Your task to perform on an android device: check storage Image 0: 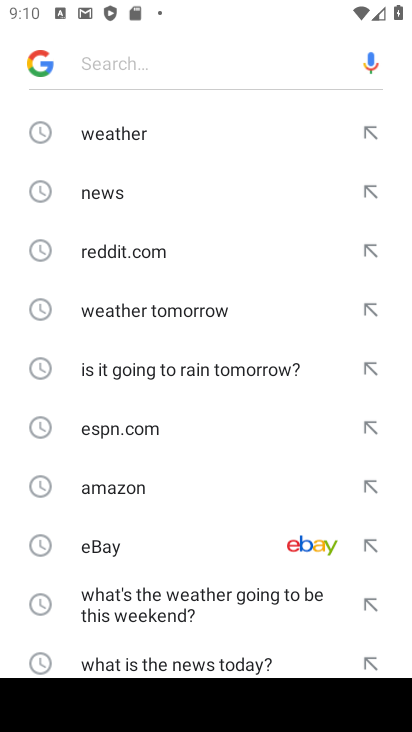
Step 0: press home button
Your task to perform on an android device: check storage Image 1: 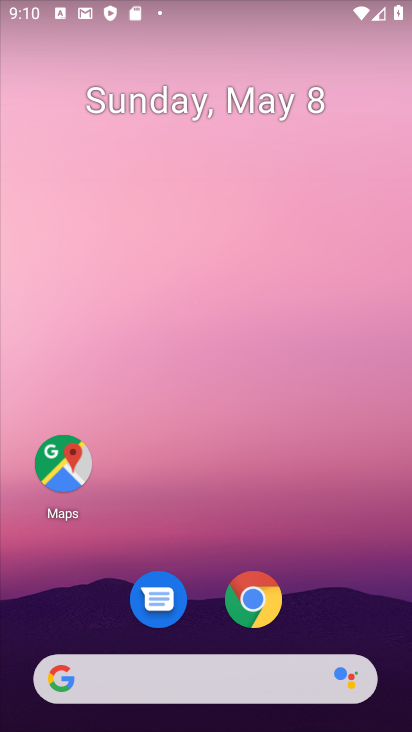
Step 1: drag from (291, 658) to (320, 8)
Your task to perform on an android device: check storage Image 2: 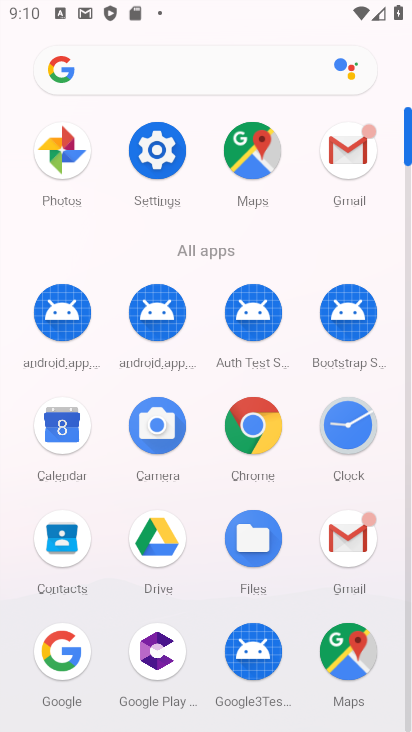
Step 2: click (170, 162)
Your task to perform on an android device: check storage Image 3: 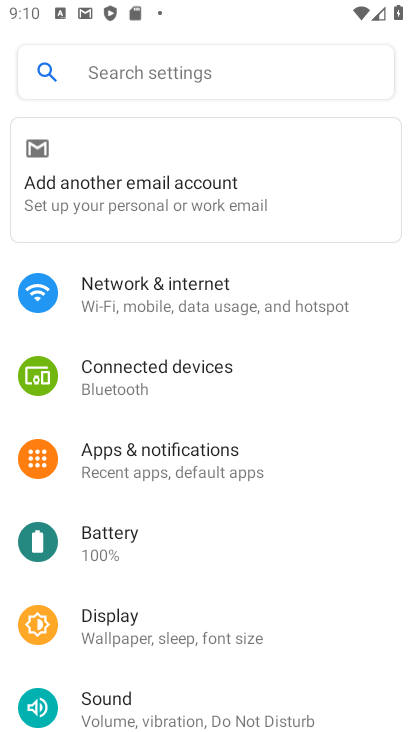
Step 3: drag from (127, 649) to (178, 198)
Your task to perform on an android device: check storage Image 4: 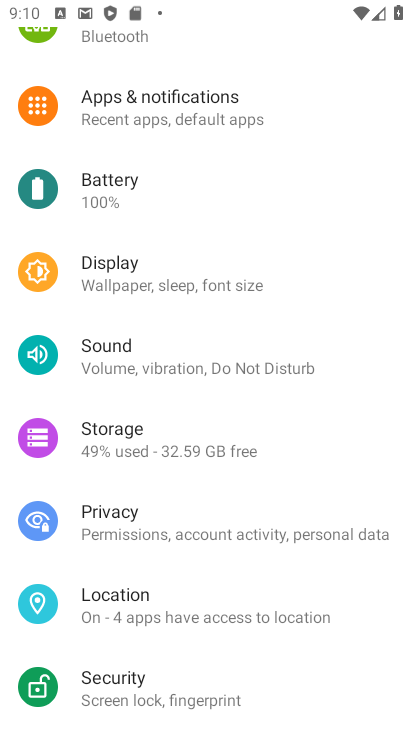
Step 4: click (164, 435)
Your task to perform on an android device: check storage Image 5: 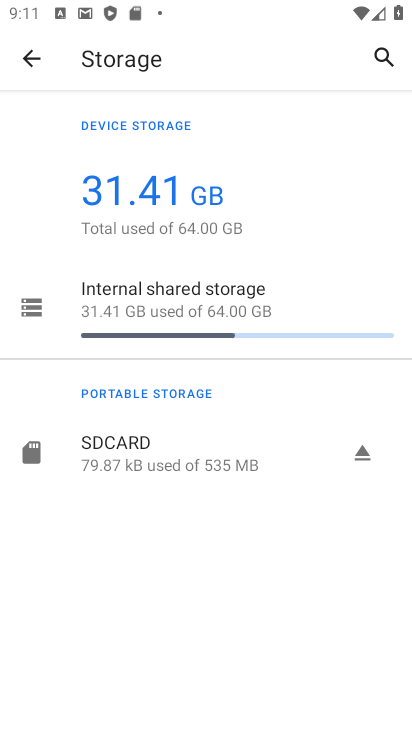
Step 5: click (190, 316)
Your task to perform on an android device: check storage Image 6: 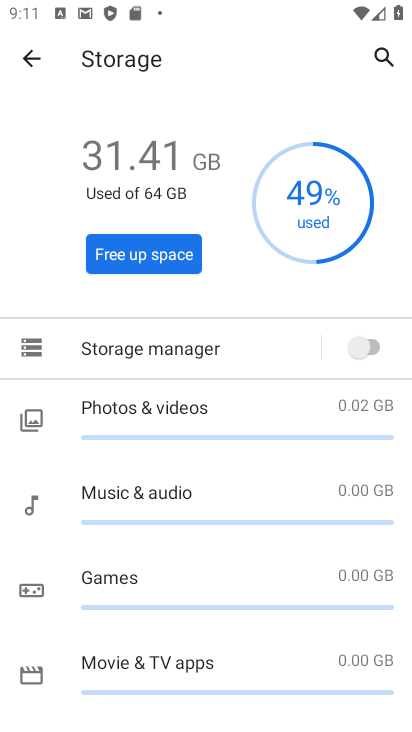
Step 6: task complete